Your task to perform on an android device: turn on the 12-hour format for clock Image 0: 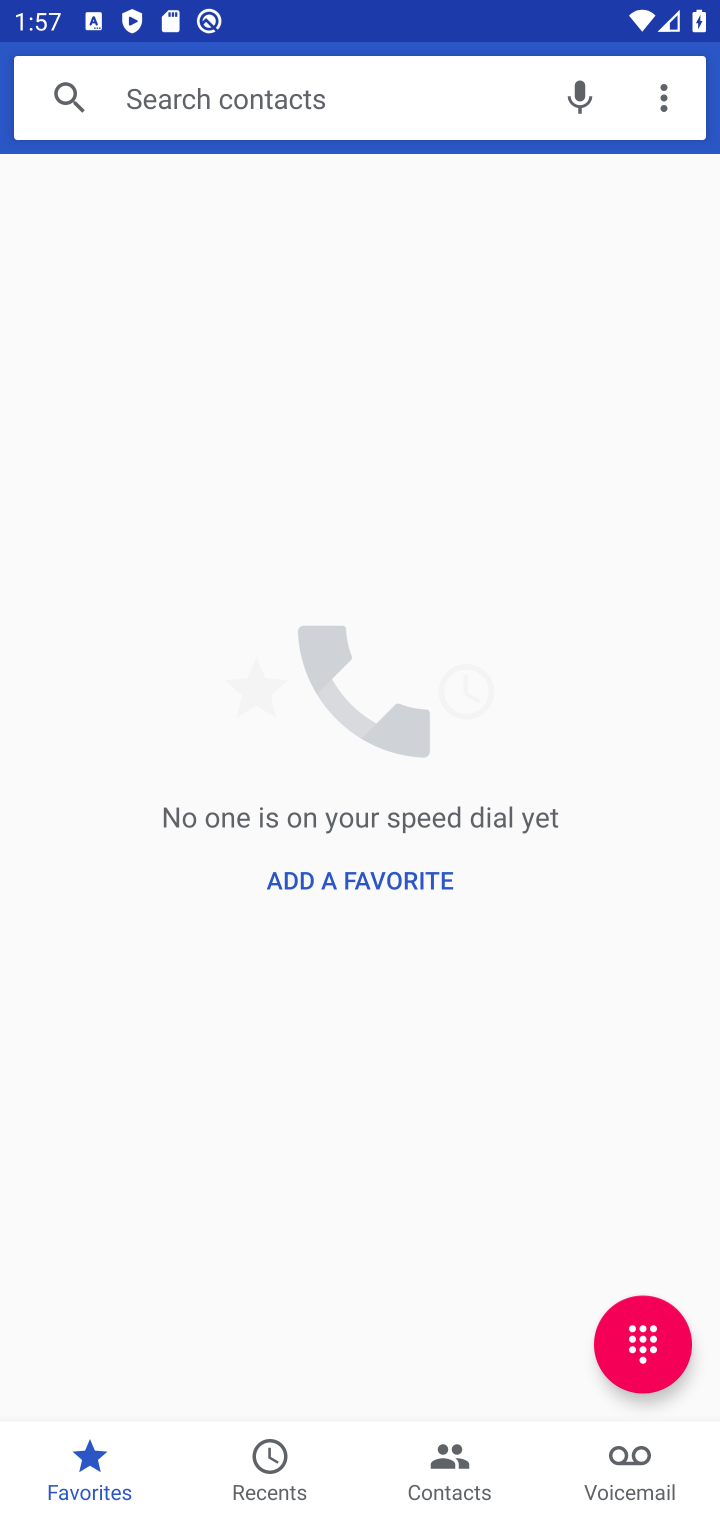
Step 0: press home button
Your task to perform on an android device: turn on the 12-hour format for clock Image 1: 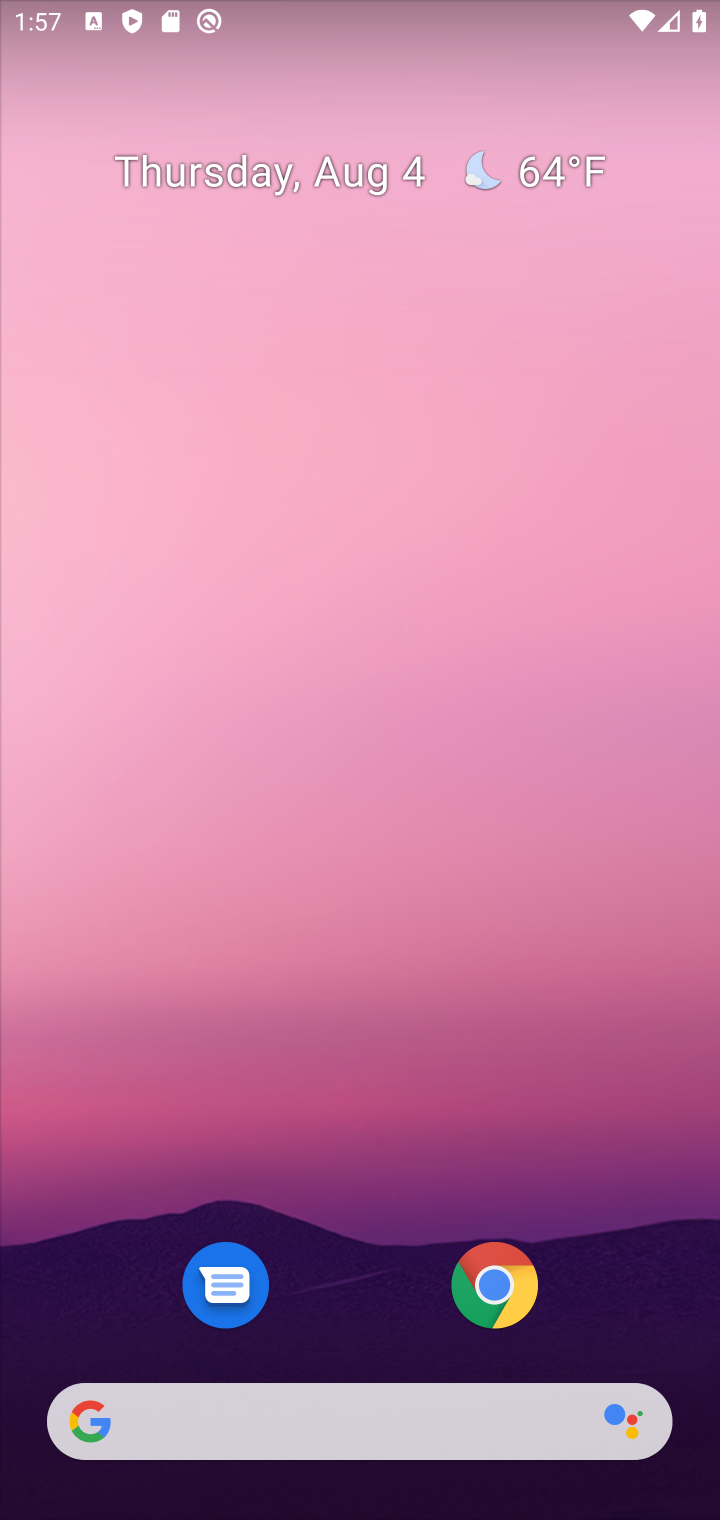
Step 1: drag from (567, 346) to (569, 258)
Your task to perform on an android device: turn on the 12-hour format for clock Image 2: 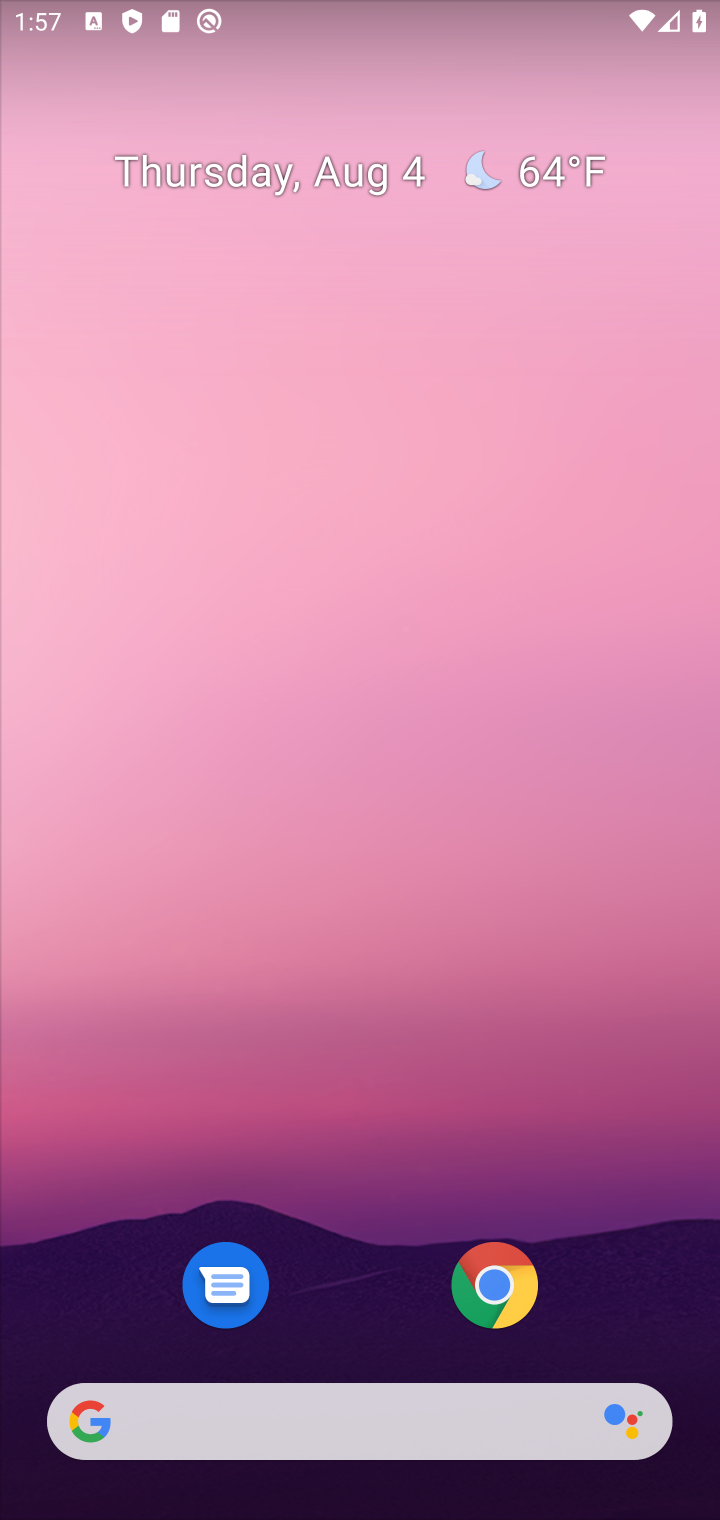
Step 2: drag from (675, 1331) to (488, 153)
Your task to perform on an android device: turn on the 12-hour format for clock Image 3: 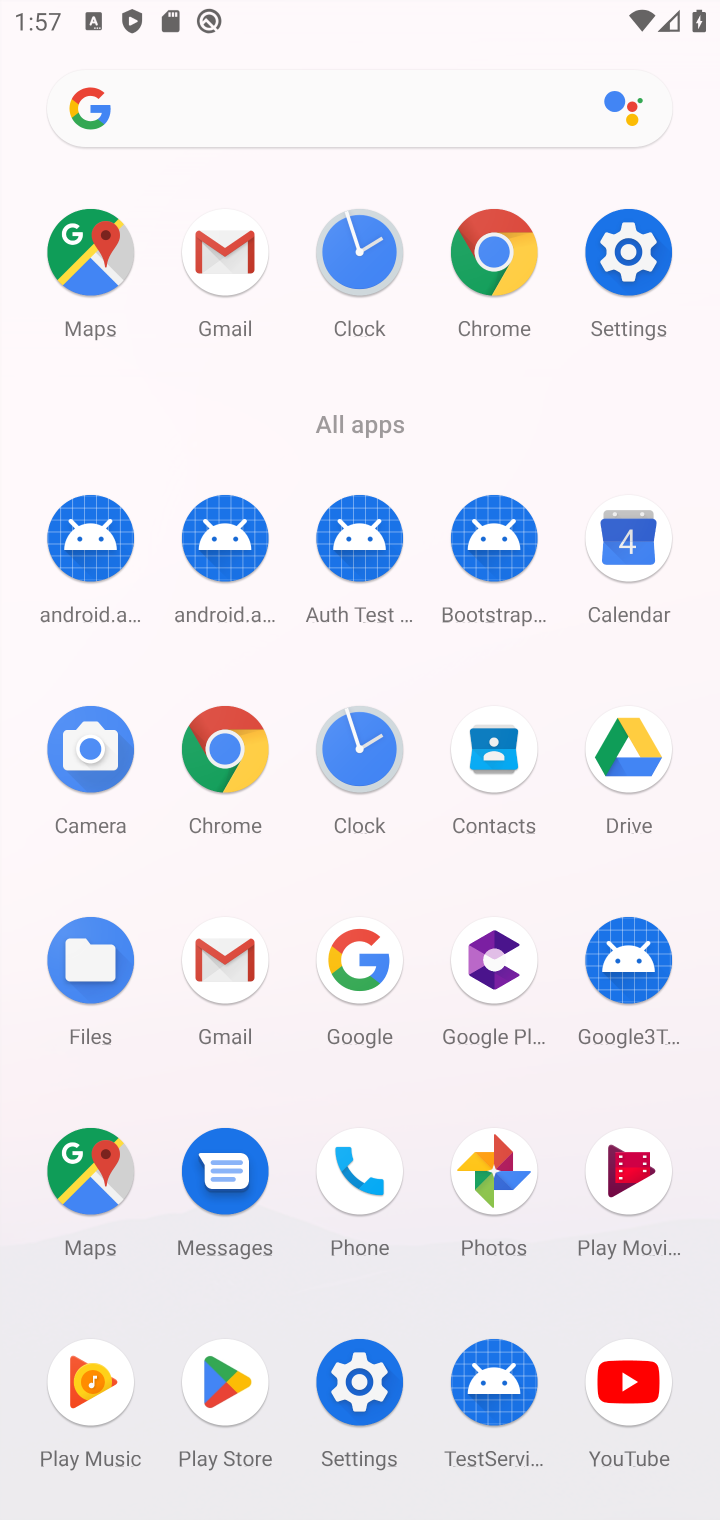
Step 3: click (355, 756)
Your task to perform on an android device: turn on the 12-hour format for clock Image 4: 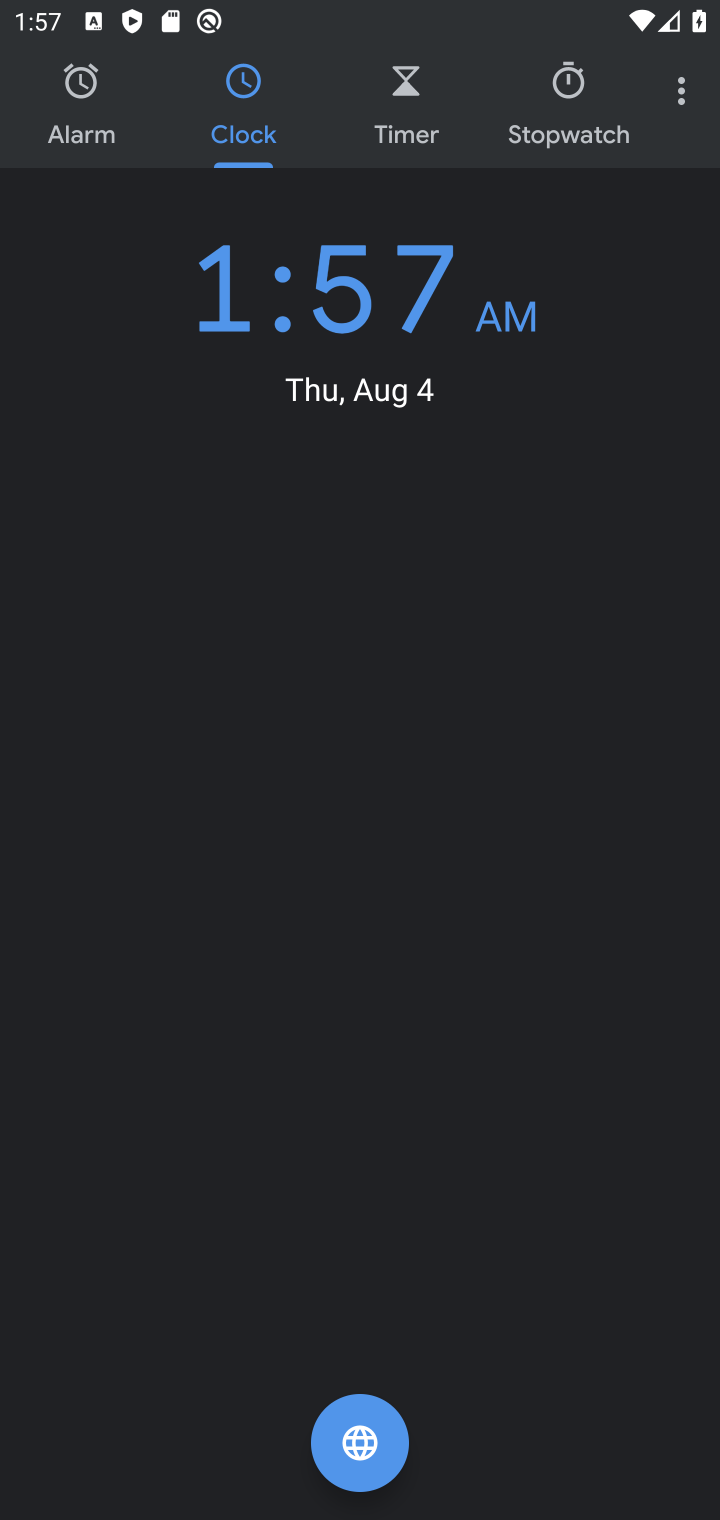
Step 4: click (671, 110)
Your task to perform on an android device: turn on the 12-hour format for clock Image 5: 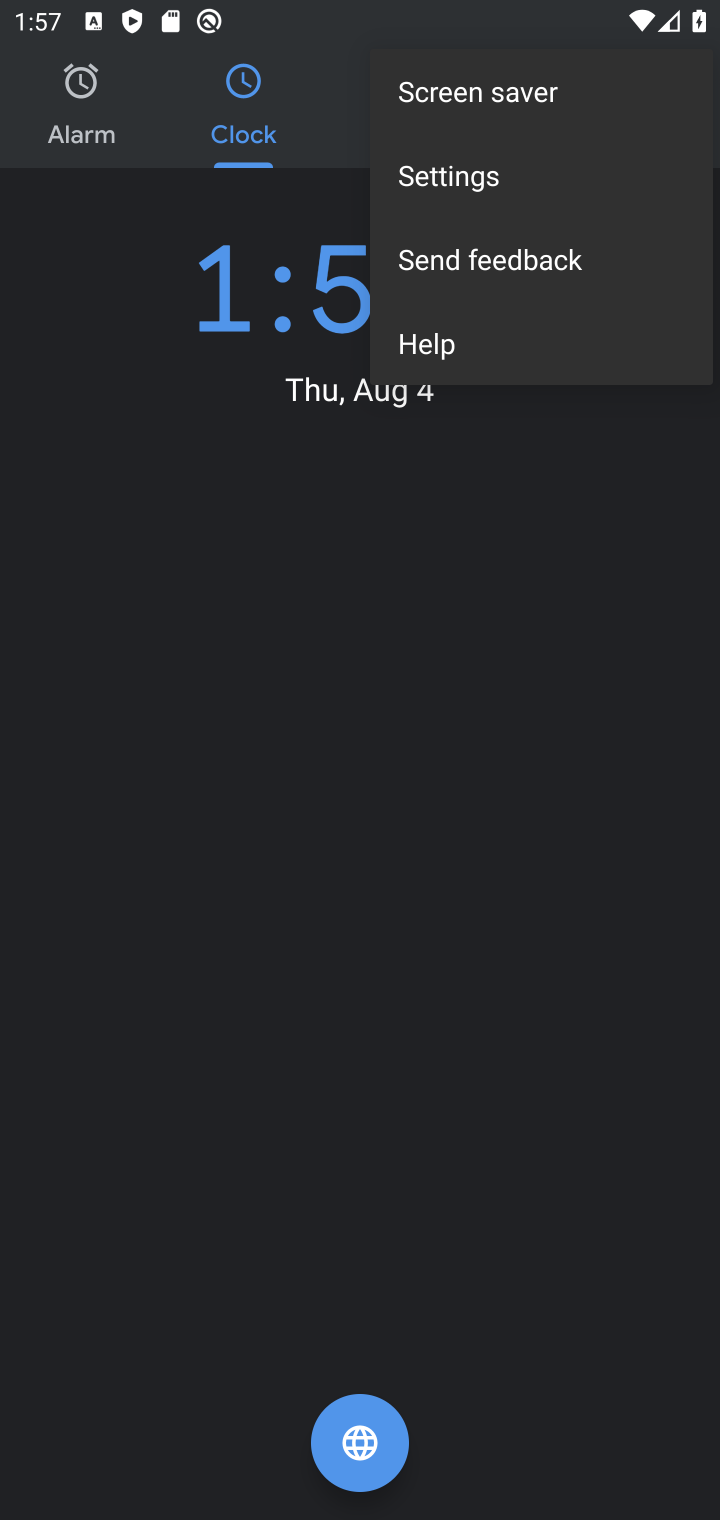
Step 5: click (447, 189)
Your task to perform on an android device: turn on the 12-hour format for clock Image 6: 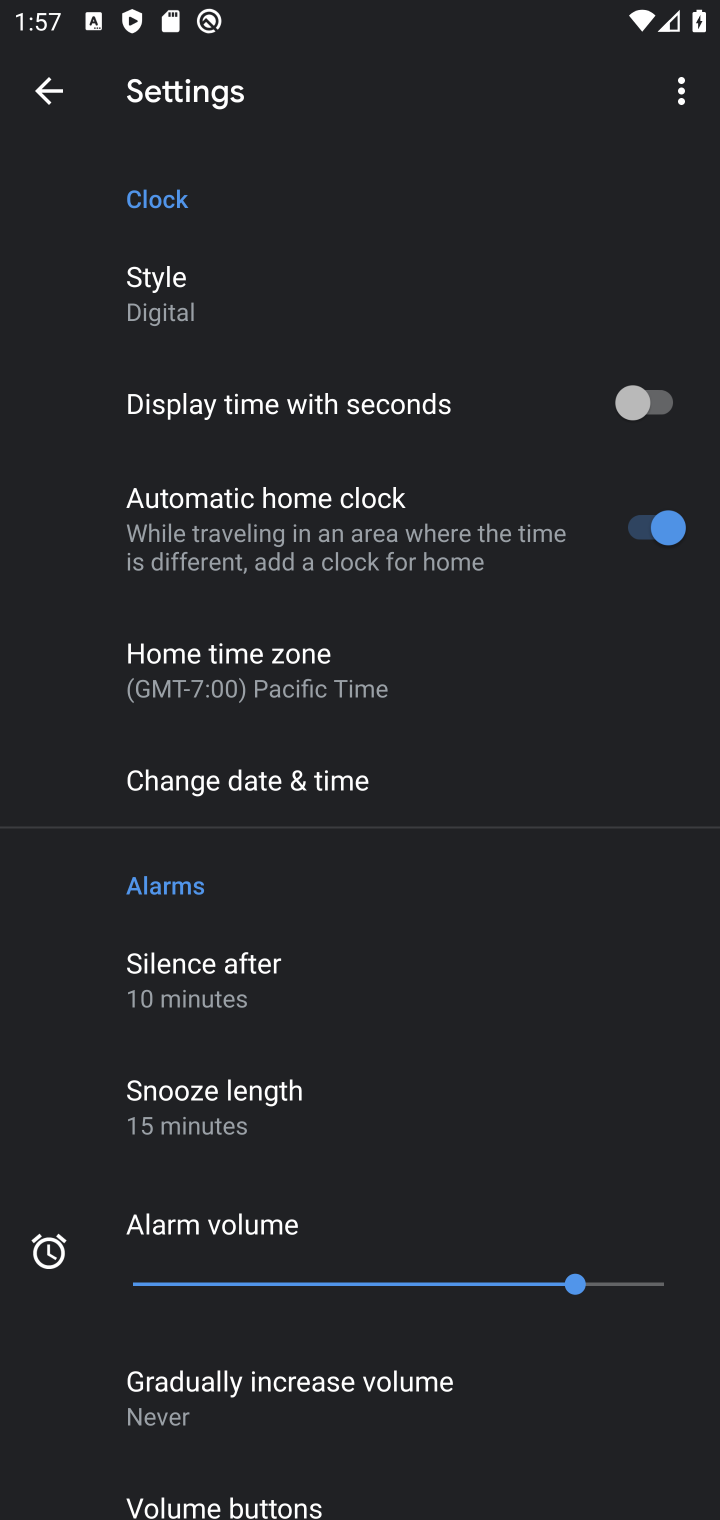
Step 6: click (268, 770)
Your task to perform on an android device: turn on the 12-hour format for clock Image 7: 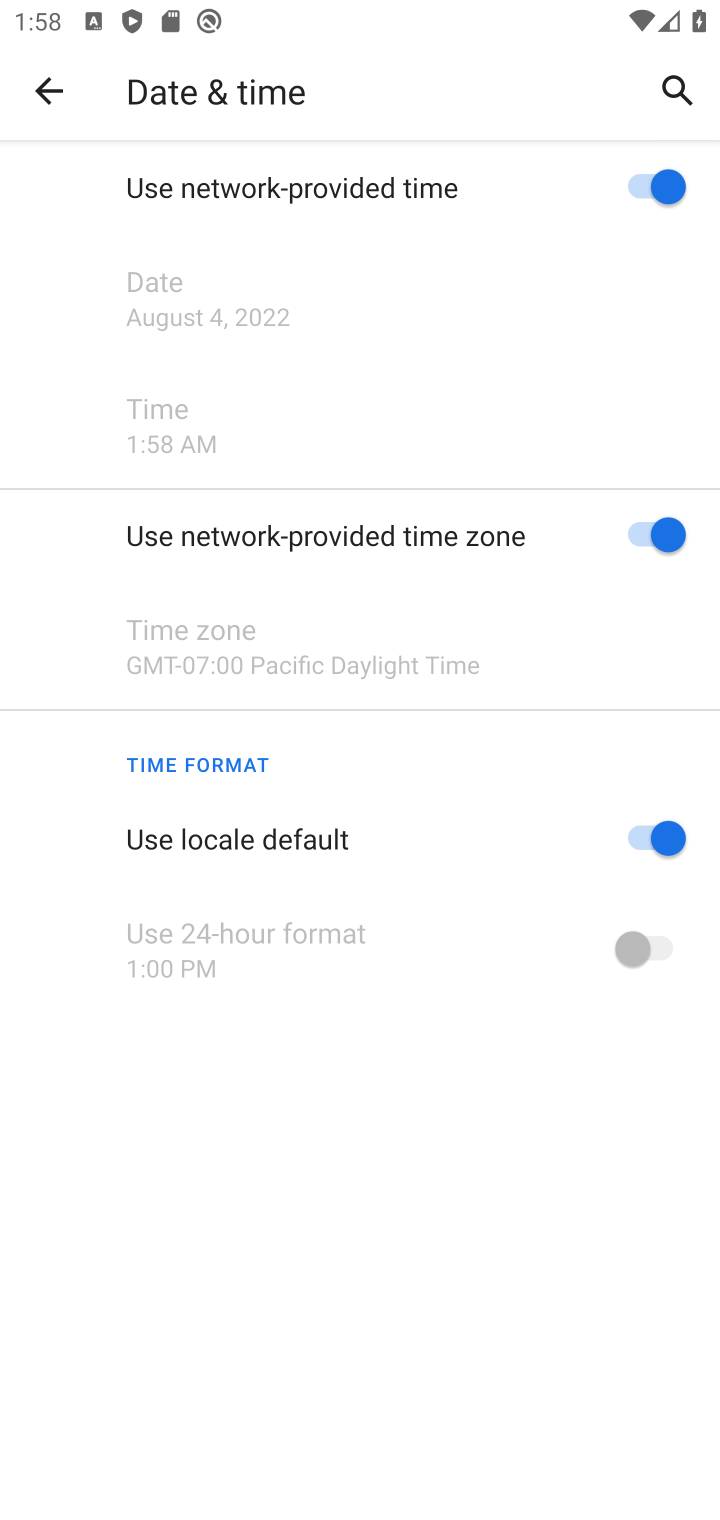
Step 7: task complete